Your task to perform on an android device: visit the assistant section in the google photos Image 0: 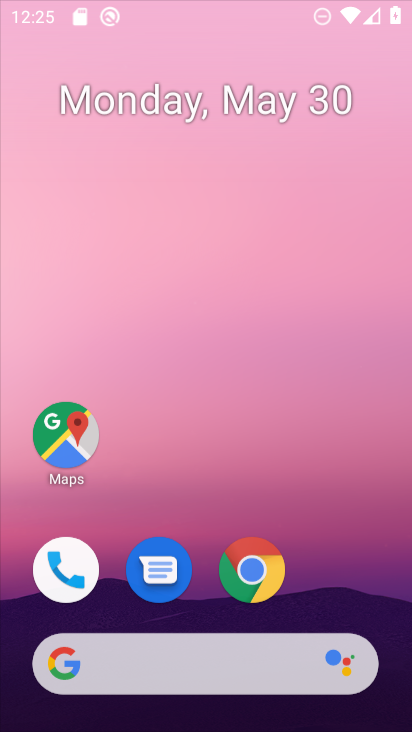
Step 0: press home button
Your task to perform on an android device: visit the assistant section in the google photos Image 1: 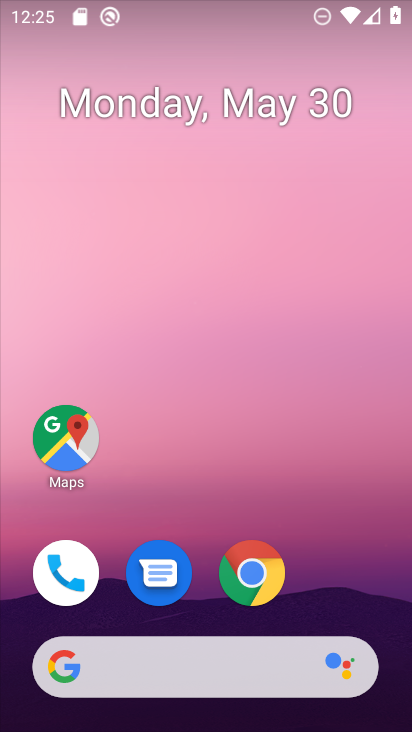
Step 1: drag from (337, 623) to (319, 140)
Your task to perform on an android device: visit the assistant section in the google photos Image 2: 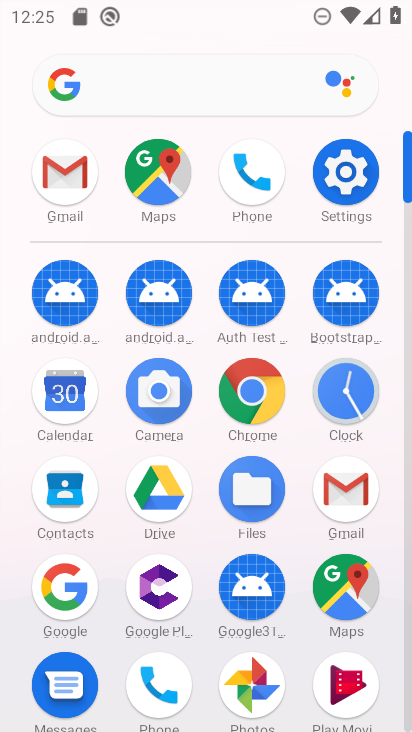
Step 2: click (256, 675)
Your task to perform on an android device: visit the assistant section in the google photos Image 3: 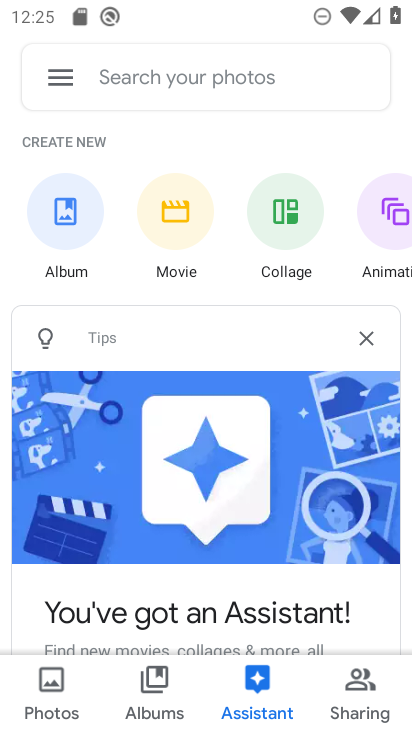
Step 3: click (258, 692)
Your task to perform on an android device: visit the assistant section in the google photos Image 4: 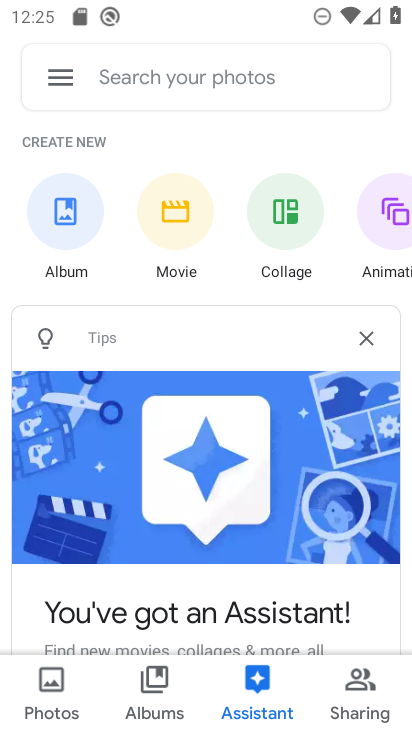
Step 4: task complete